Your task to perform on an android device: empty trash in the gmail app Image 0: 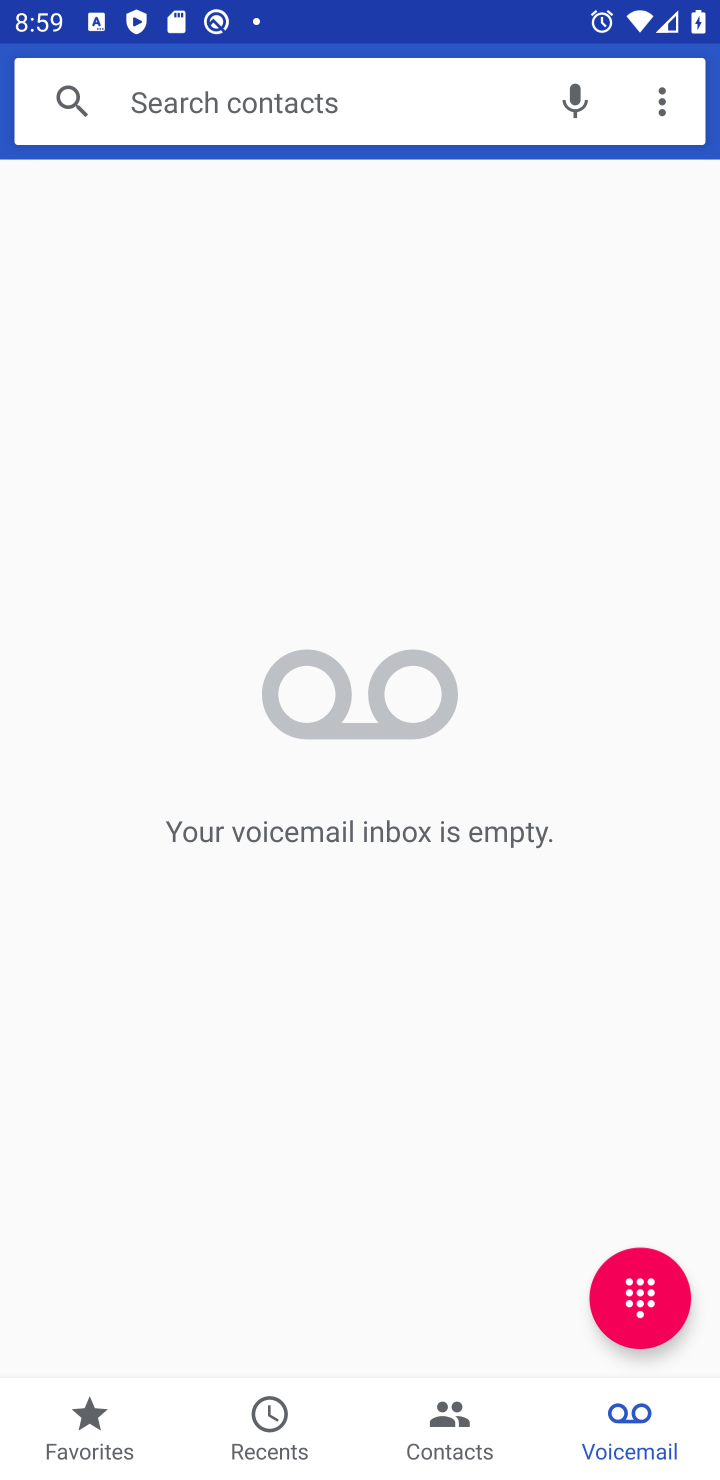
Step 0: press home button
Your task to perform on an android device: empty trash in the gmail app Image 1: 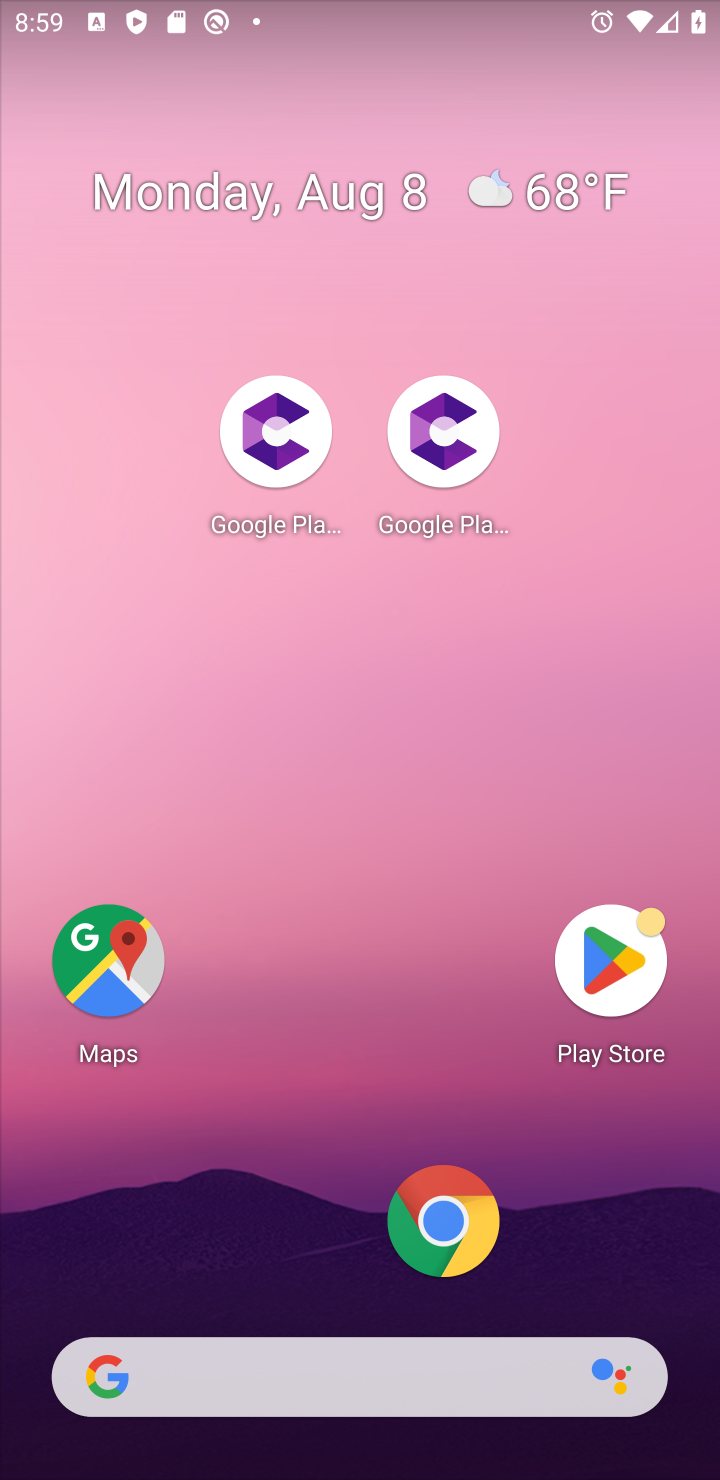
Step 1: drag from (347, 989) to (371, 152)
Your task to perform on an android device: empty trash in the gmail app Image 2: 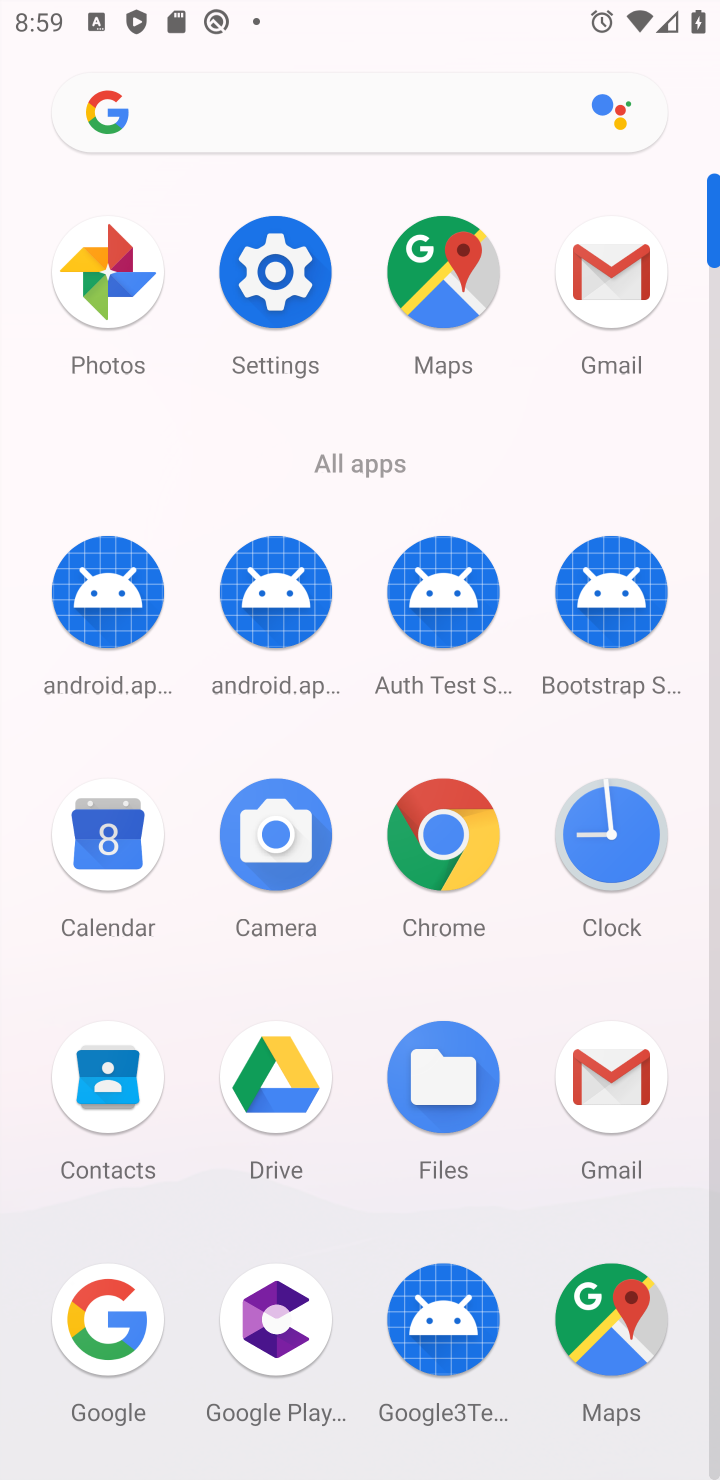
Step 2: click (646, 283)
Your task to perform on an android device: empty trash in the gmail app Image 3: 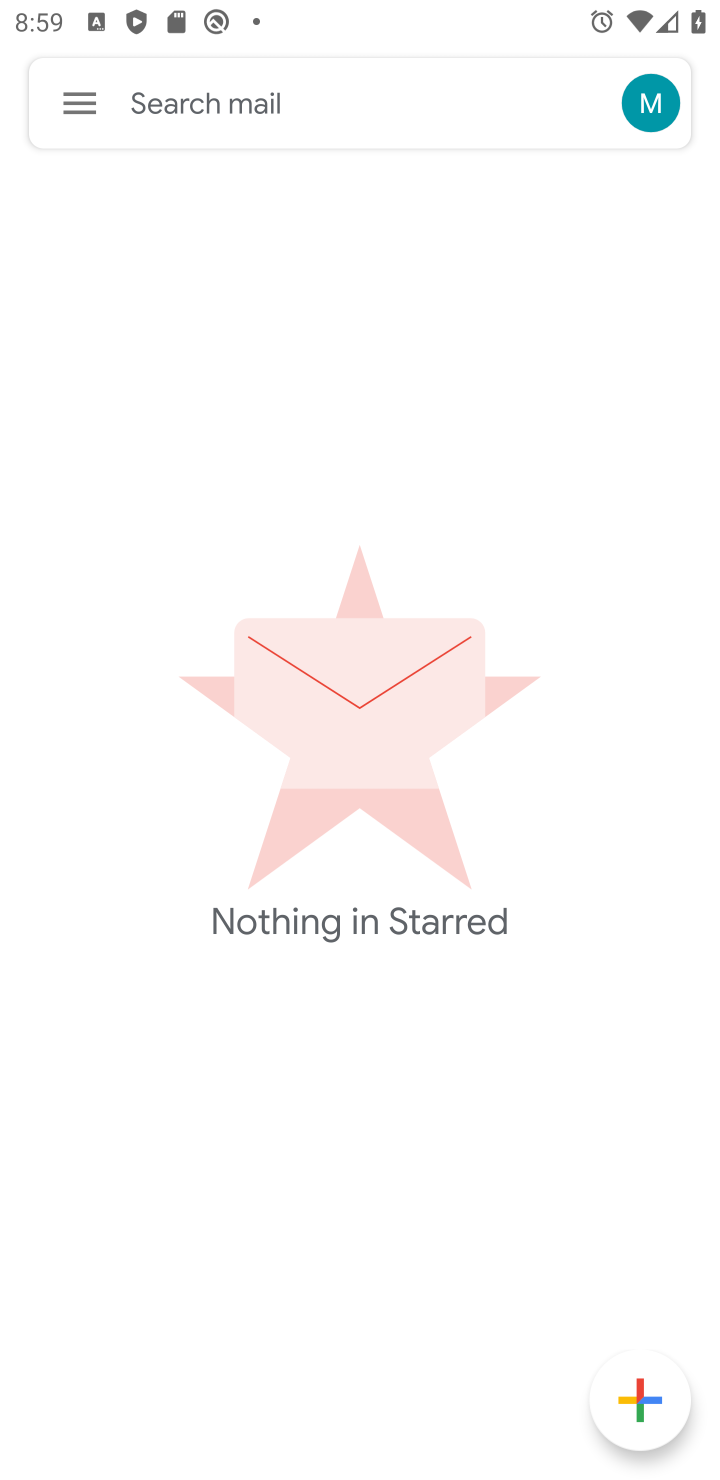
Step 3: click (102, 118)
Your task to perform on an android device: empty trash in the gmail app Image 4: 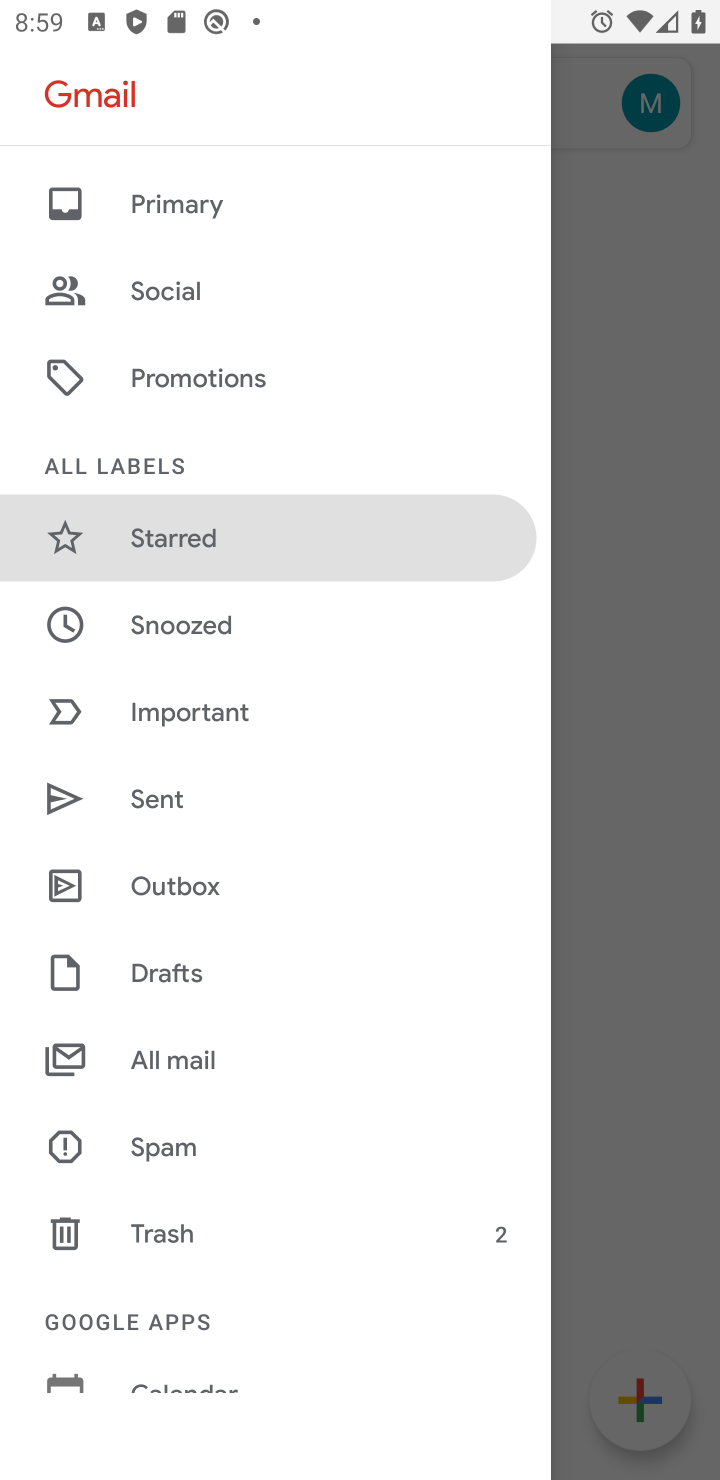
Step 4: click (163, 1226)
Your task to perform on an android device: empty trash in the gmail app Image 5: 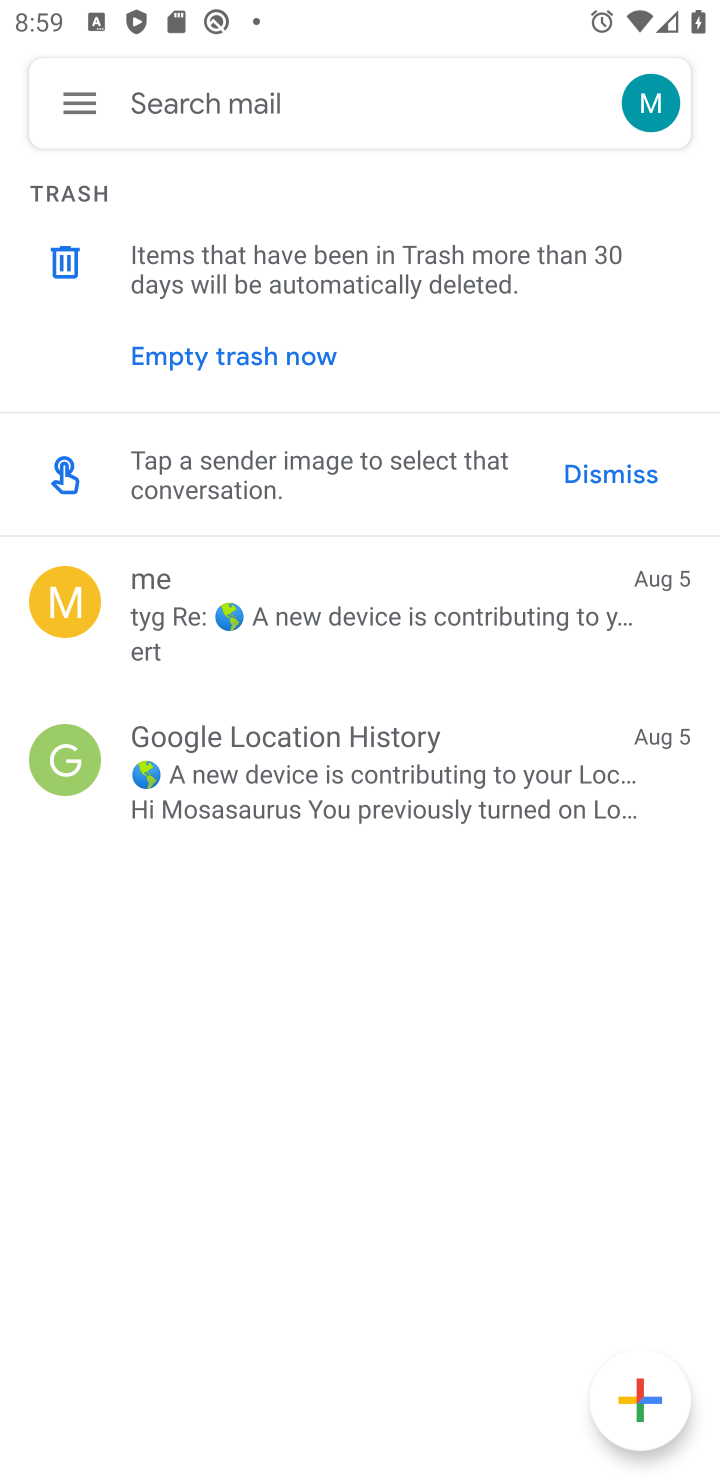
Step 5: click (347, 357)
Your task to perform on an android device: empty trash in the gmail app Image 6: 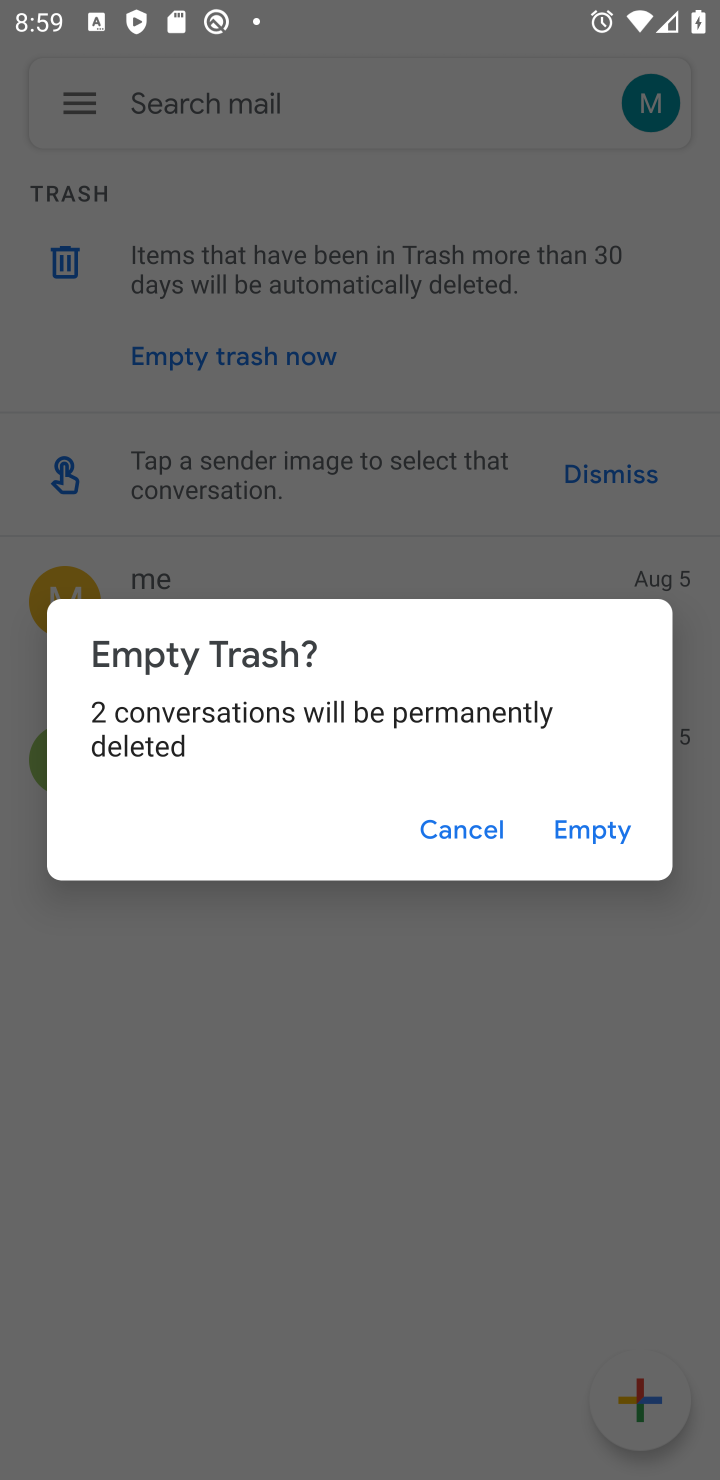
Step 6: click (567, 843)
Your task to perform on an android device: empty trash in the gmail app Image 7: 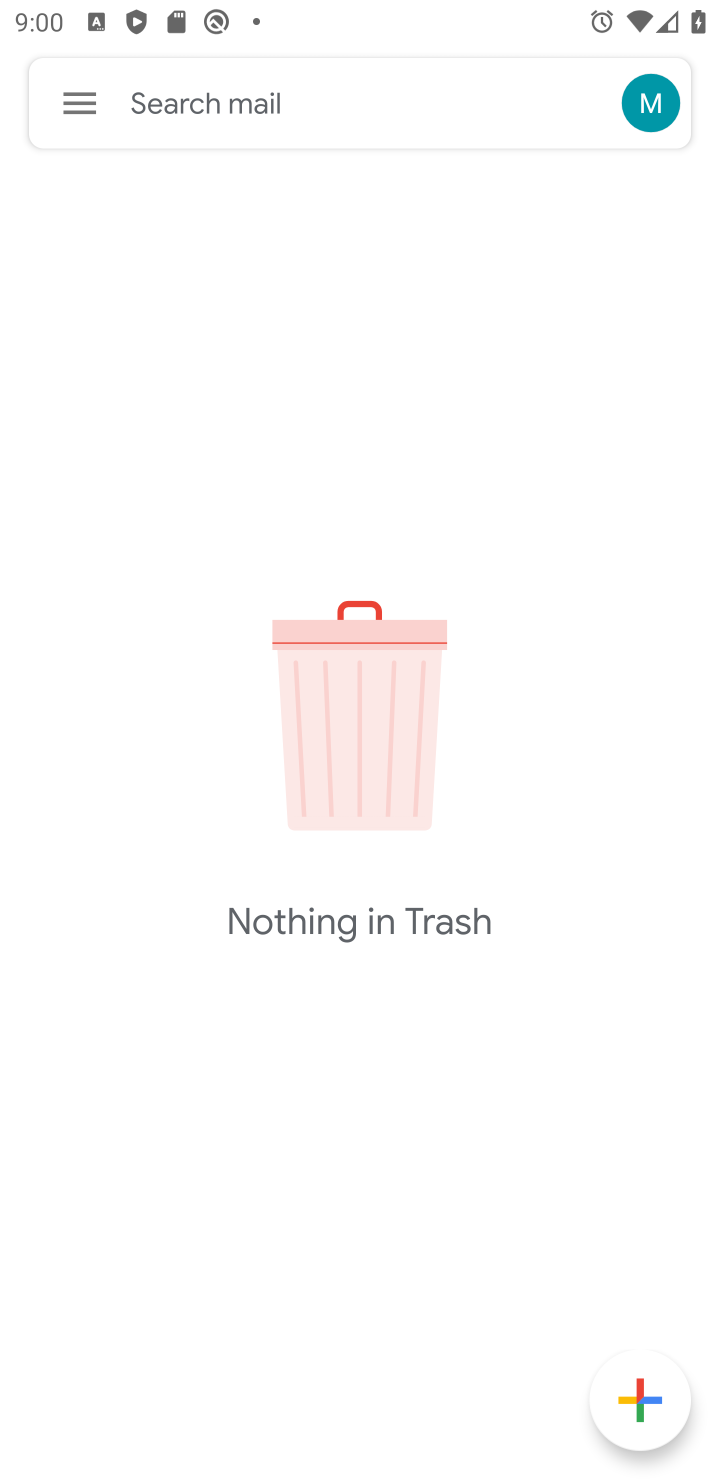
Step 7: task complete